Your task to perform on an android device: Show me productivity apps on the Play Store Image 0: 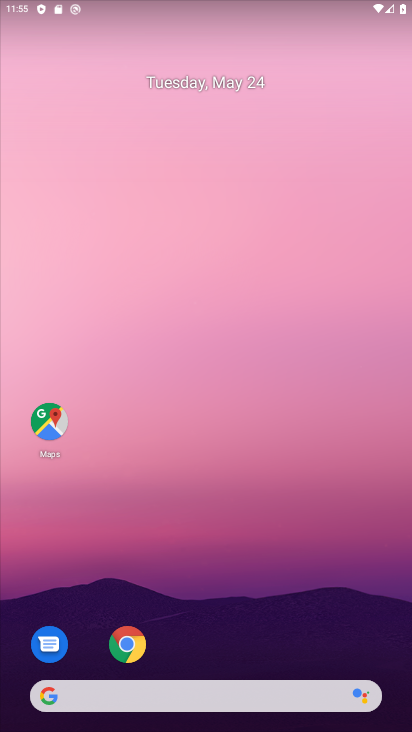
Step 0: drag from (222, 679) to (313, 67)
Your task to perform on an android device: Show me productivity apps on the Play Store Image 1: 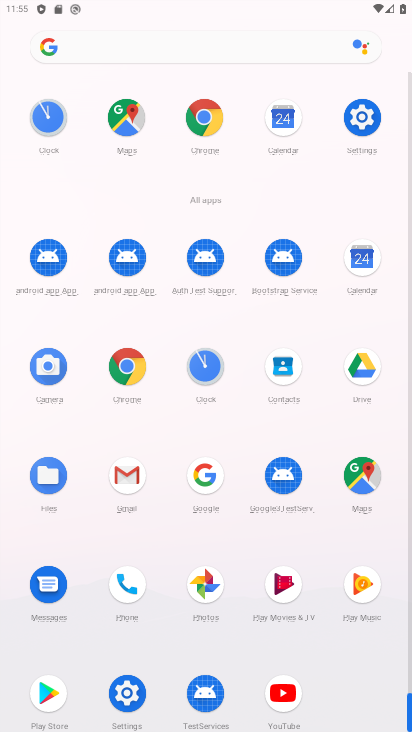
Step 1: click (37, 686)
Your task to perform on an android device: Show me productivity apps on the Play Store Image 2: 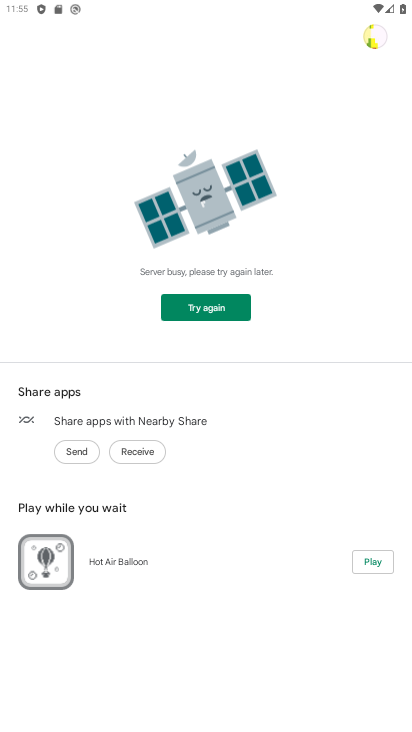
Step 2: task complete